Your task to perform on an android device: toggle javascript in the chrome app Image 0: 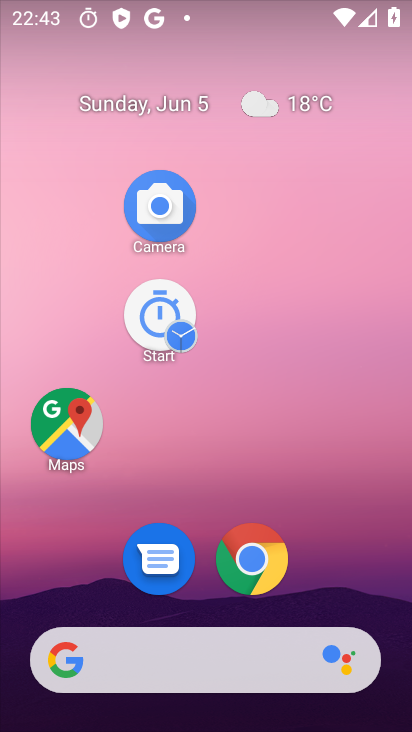
Step 0: drag from (164, 495) to (106, 44)
Your task to perform on an android device: toggle javascript in the chrome app Image 1: 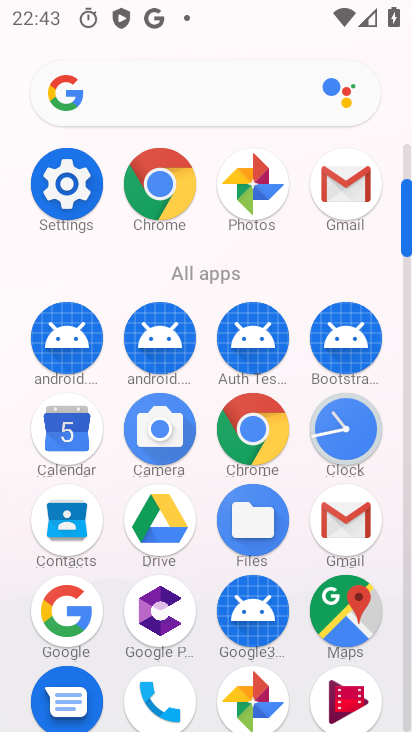
Step 1: click (138, 181)
Your task to perform on an android device: toggle javascript in the chrome app Image 2: 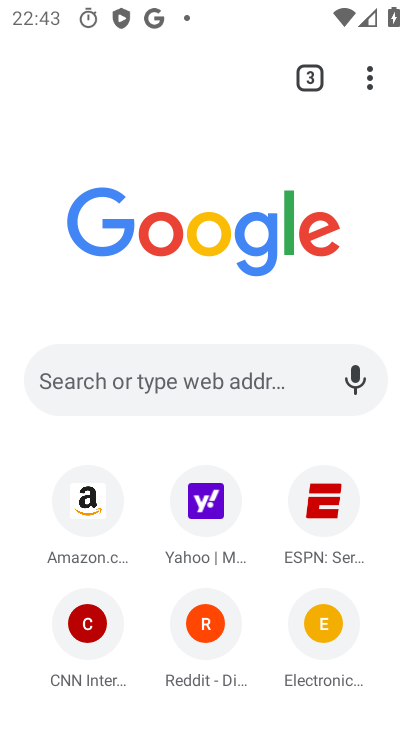
Step 2: click (364, 79)
Your task to perform on an android device: toggle javascript in the chrome app Image 3: 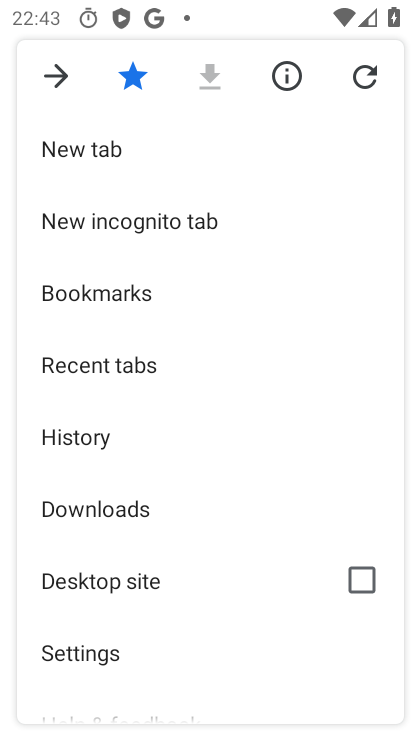
Step 3: click (69, 650)
Your task to perform on an android device: toggle javascript in the chrome app Image 4: 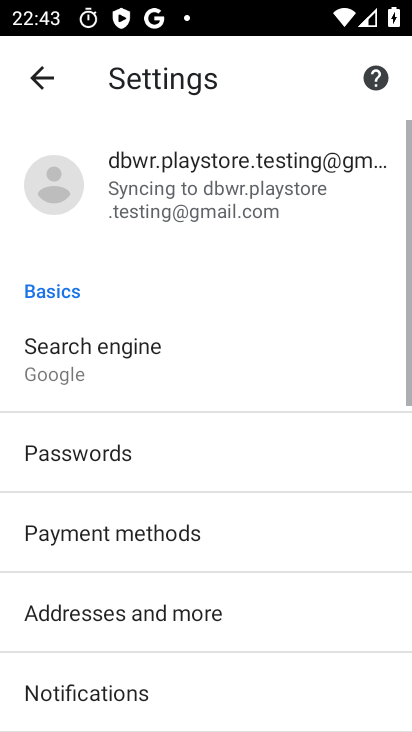
Step 4: drag from (159, 573) to (141, 125)
Your task to perform on an android device: toggle javascript in the chrome app Image 5: 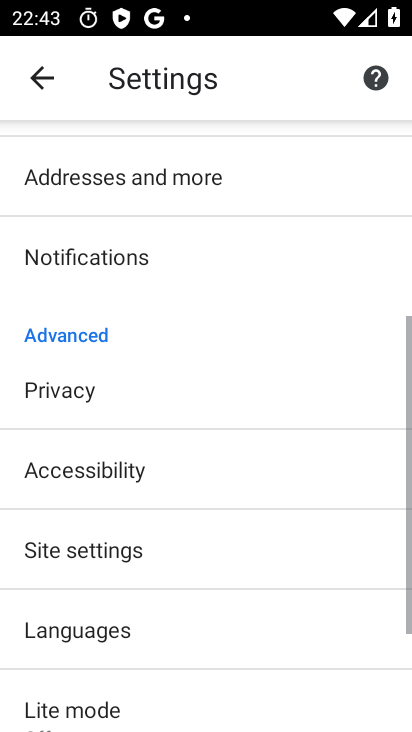
Step 5: drag from (144, 444) to (125, 124)
Your task to perform on an android device: toggle javascript in the chrome app Image 6: 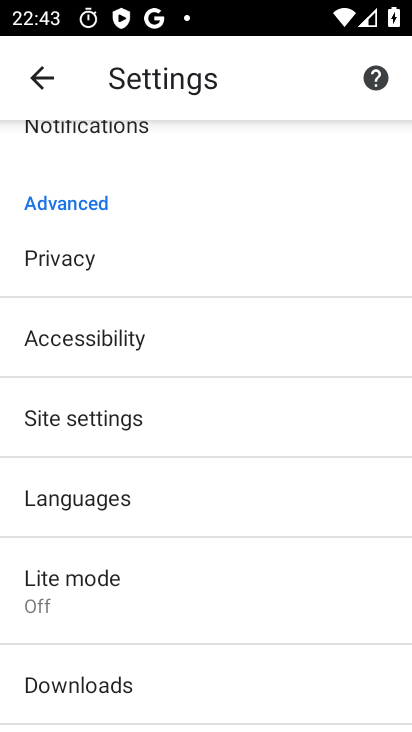
Step 6: click (56, 421)
Your task to perform on an android device: toggle javascript in the chrome app Image 7: 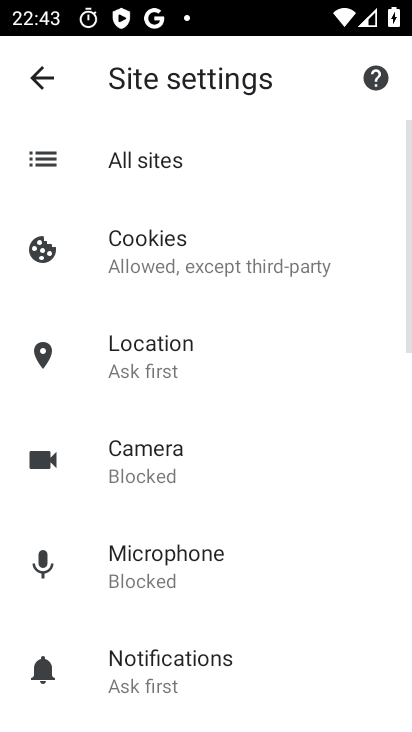
Step 7: drag from (184, 504) to (169, 223)
Your task to perform on an android device: toggle javascript in the chrome app Image 8: 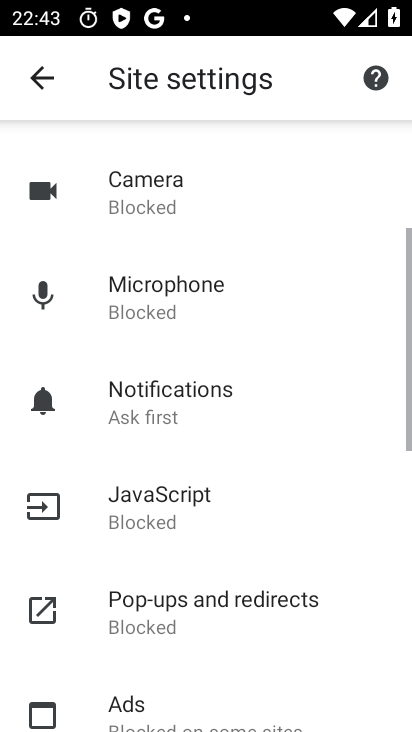
Step 8: drag from (222, 560) to (222, 219)
Your task to perform on an android device: toggle javascript in the chrome app Image 9: 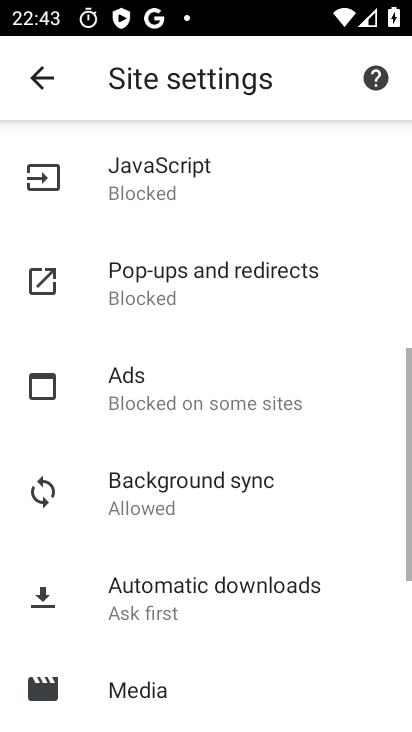
Step 9: drag from (216, 448) to (194, 186)
Your task to perform on an android device: toggle javascript in the chrome app Image 10: 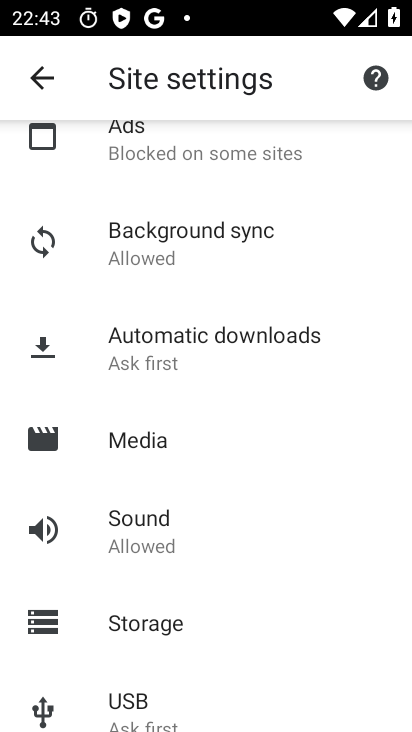
Step 10: drag from (159, 236) to (168, 486)
Your task to perform on an android device: toggle javascript in the chrome app Image 11: 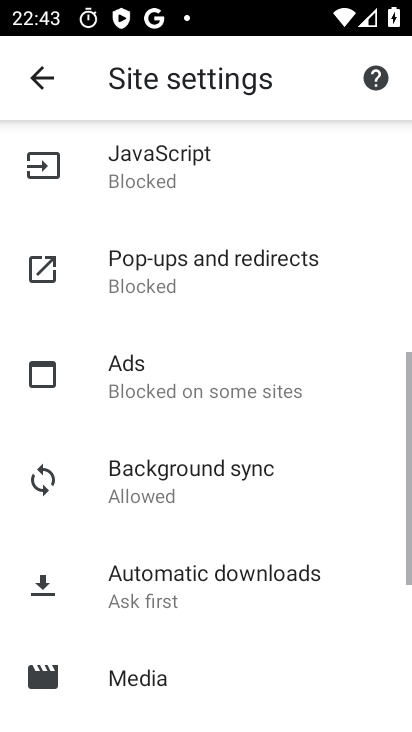
Step 11: drag from (199, 223) to (242, 433)
Your task to perform on an android device: toggle javascript in the chrome app Image 12: 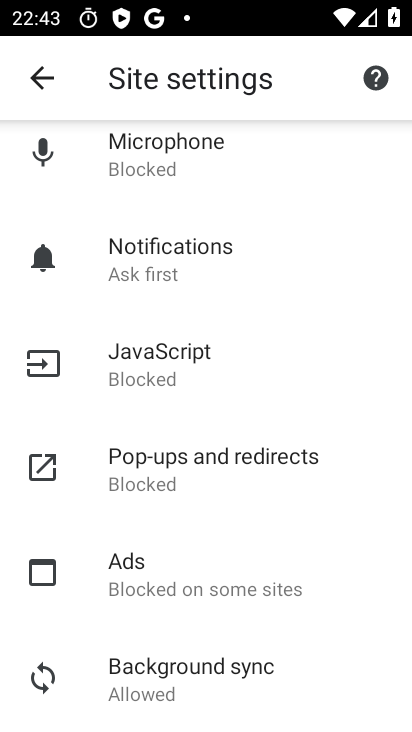
Step 12: click (156, 348)
Your task to perform on an android device: toggle javascript in the chrome app Image 13: 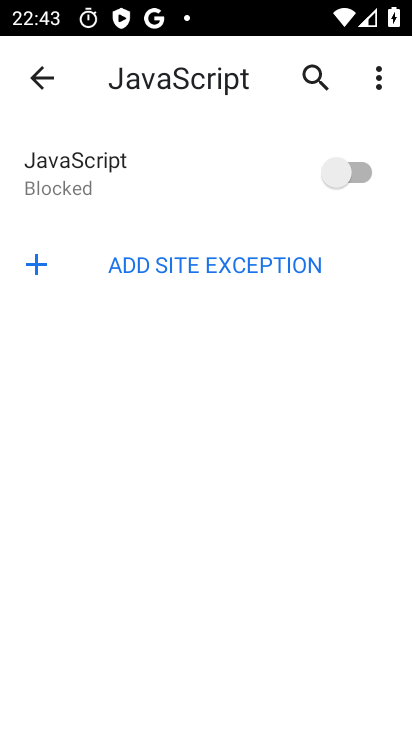
Step 13: click (343, 164)
Your task to perform on an android device: toggle javascript in the chrome app Image 14: 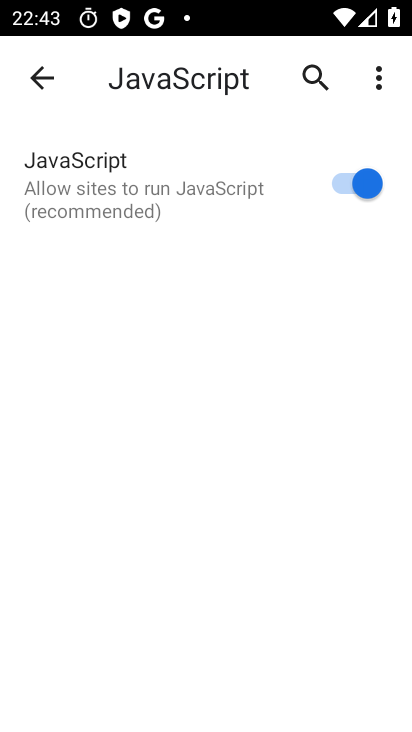
Step 14: task complete